Your task to perform on an android device: Open eBay Image 0: 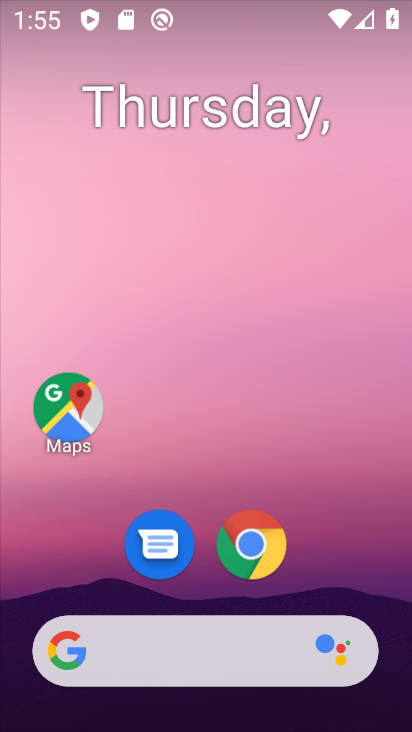
Step 0: click (266, 544)
Your task to perform on an android device: Open eBay Image 1: 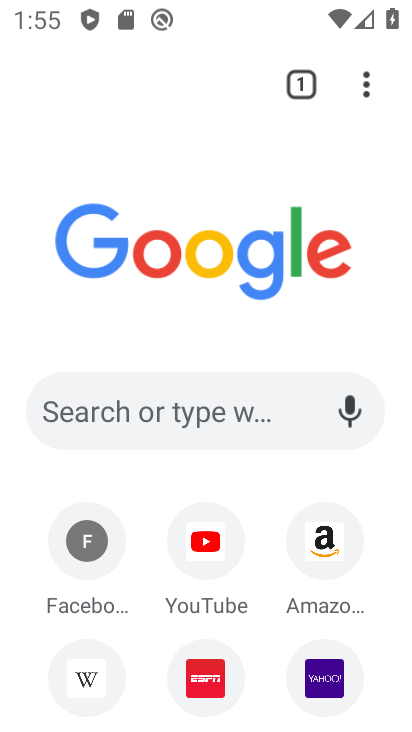
Step 1: click (186, 416)
Your task to perform on an android device: Open eBay Image 2: 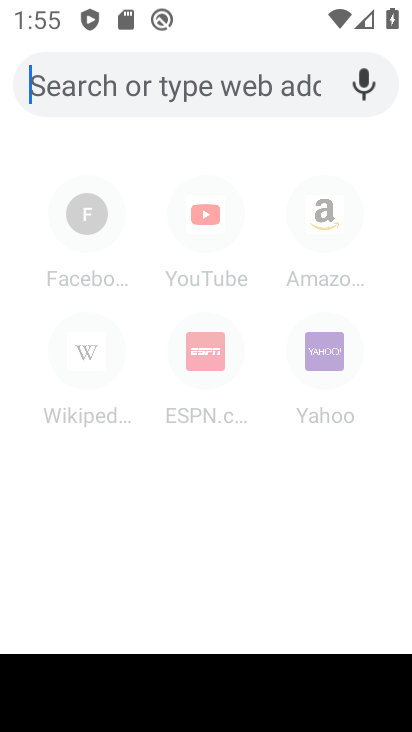
Step 2: type "ebay"
Your task to perform on an android device: Open eBay Image 3: 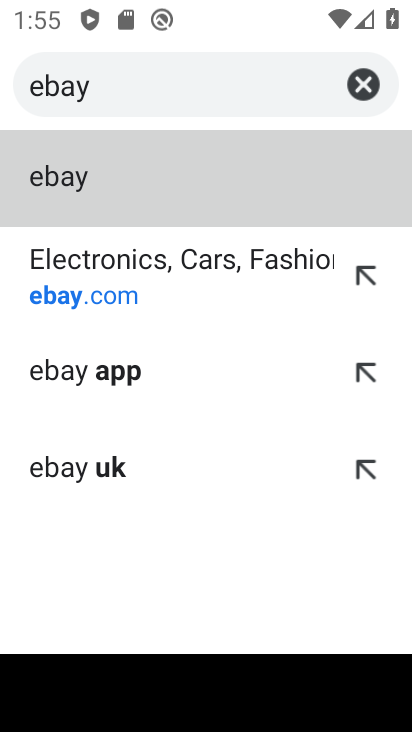
Step 3: click (129, 263)
Your task to perform on an android device: Open eBay Image 4: 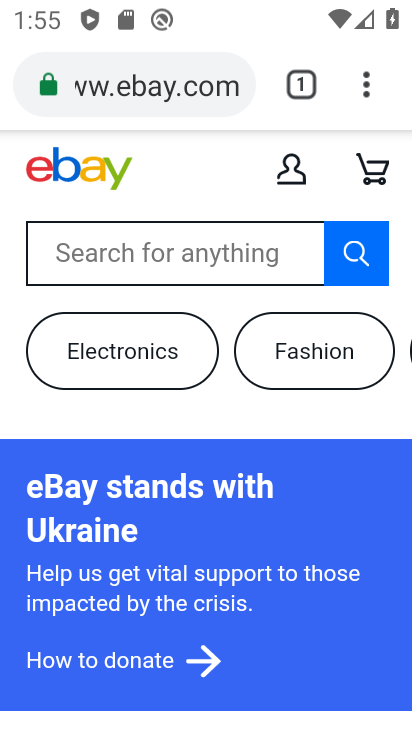
Step 4: task complete